Your task to perform on an android device: stop showing notifications on the lock screen Image 0: 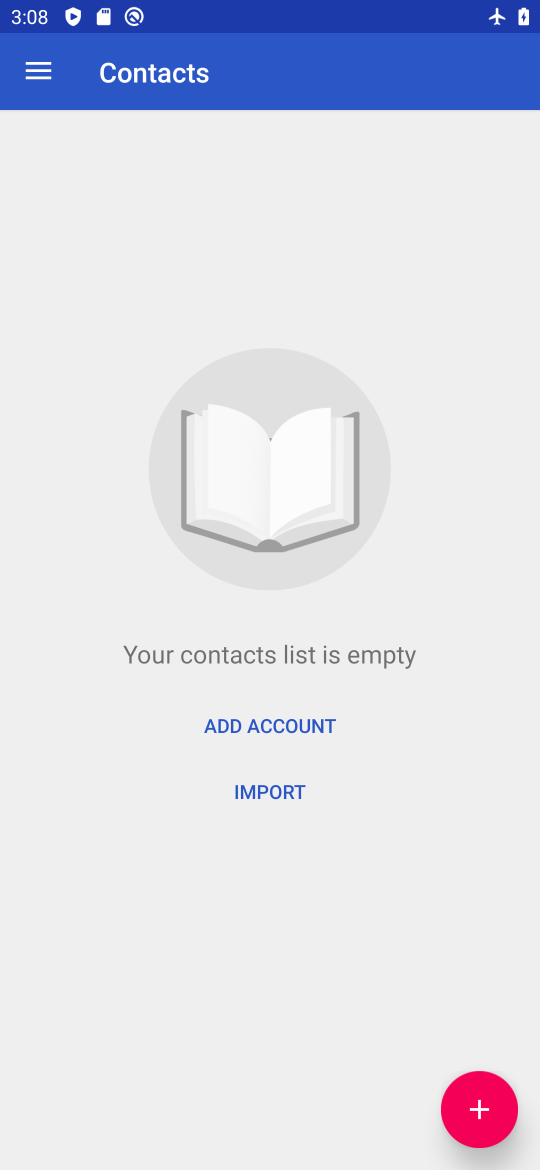
Step 0: task complete